Your task to perform on an android device: change your default location settings in chrome Image 0: 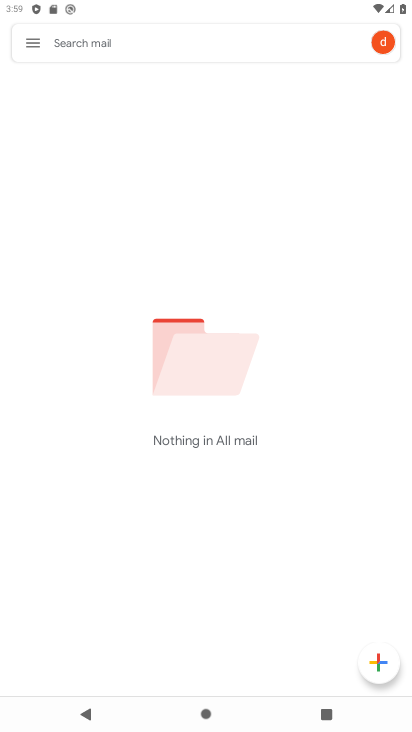
Step 0: press home button
Your task to perform on an android device: change your default location settings in chrome Image 1: 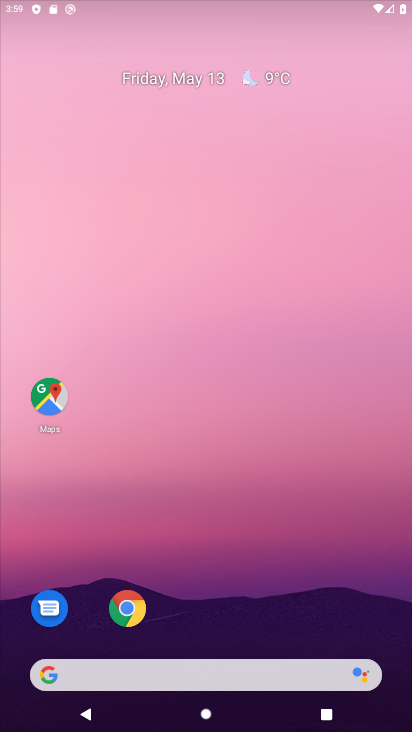
Step 1: drag from (250, 377) to (172, 108)
Your task to perform on an android device: change your default location settings in chrome Image 2: 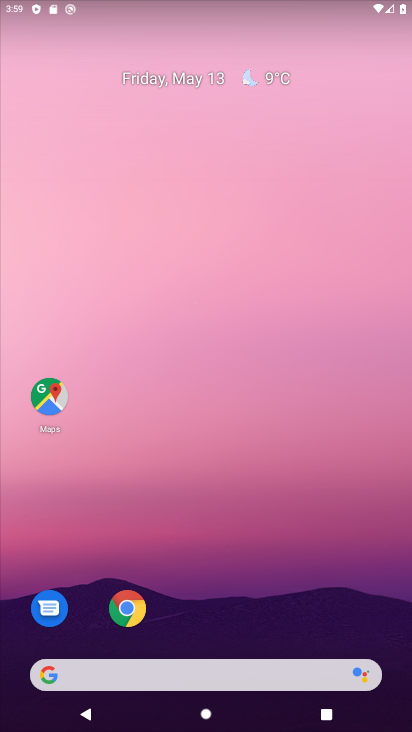
Step 2: click (130, 611)
Your task to perform on an android device: change your default location settings in chrome Image 3: 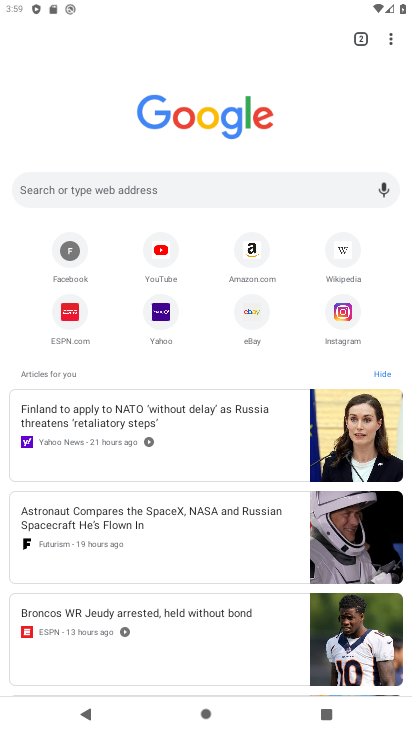
Step 3: click (386, 34)
Your task to perform on an android device: change your default location settings in chrome Image 4: 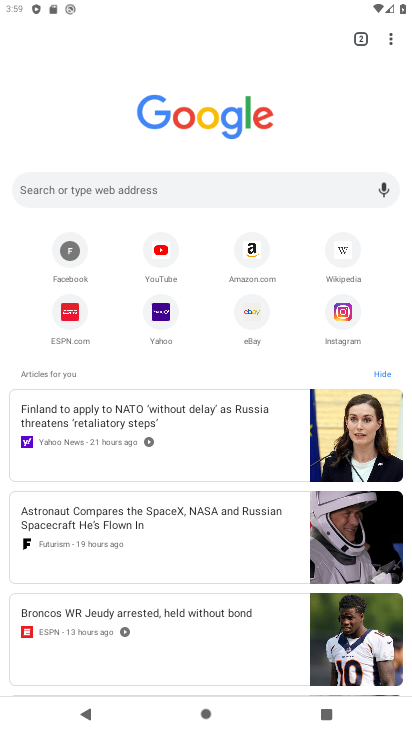
Step 4: click (389, 33)
Your task to perform on an android device: change your default location settings in chrome Image 5: 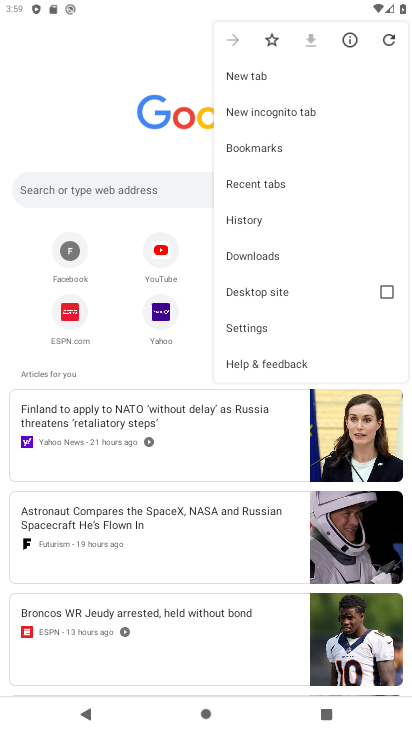
Step 5: click (274, 325)
Your task to perform on an android device: change your default location settings in chrome Image 6: 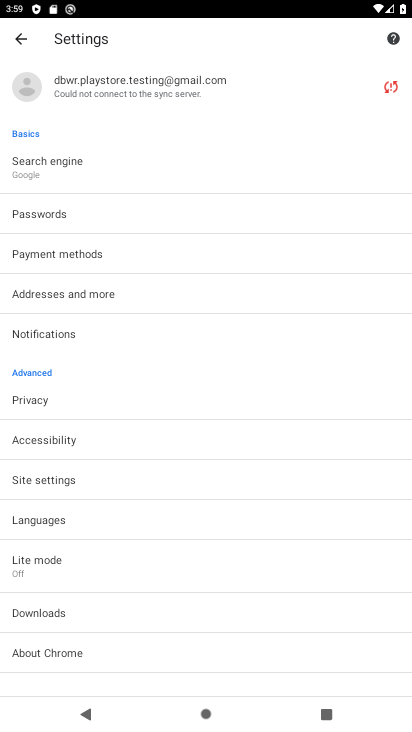
Step 6: click (76, 482)
Your task to perform on an android device: change your default location settings in chrome Image 7: 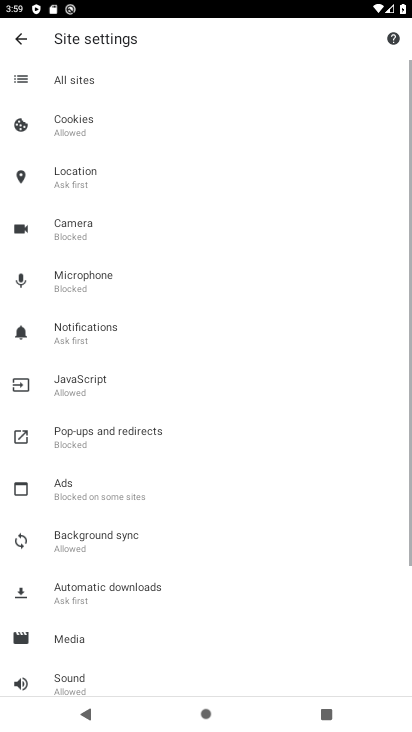
Step 7: click (162, 178)
Your task to perform on an android device: change your default location settings in chrome Image 8: 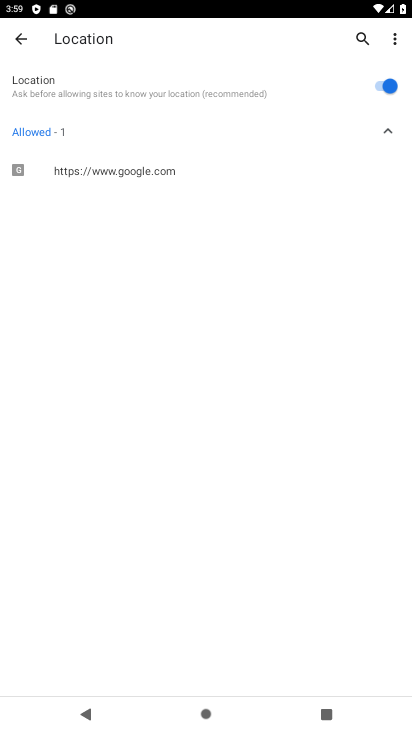
Step 8: click (383, 75)
Your task to perform on an android device: change your default location settings in chrome Image 9: 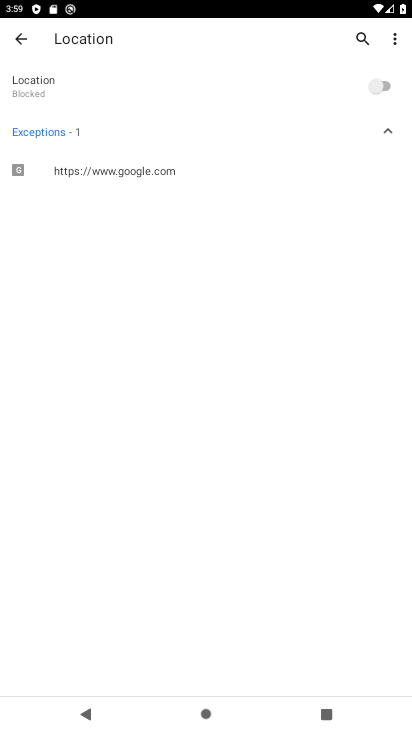
Step 9: task complete